Your task to perform on an android device: Search for "asus zenbook" on ebay, select the first entry, and add it to the cart. Image 0: 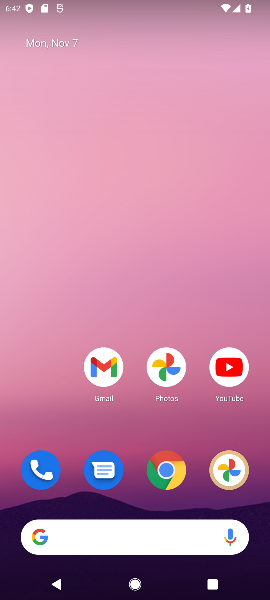
Step 0: click (154, 473)
Your task to perform on an android device: Search for "asus zenbook" on ebay, select the first entry, and add it to the cart. Image 1: 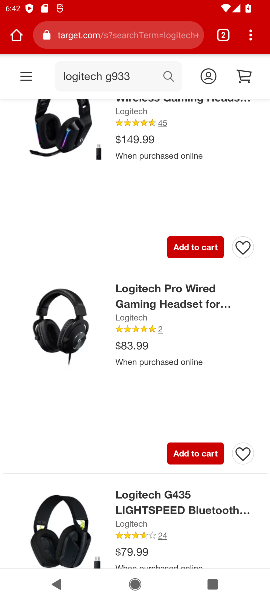
Step 1: task complete